Your task to perform on an android device: open sync settings in chrome Image 0: 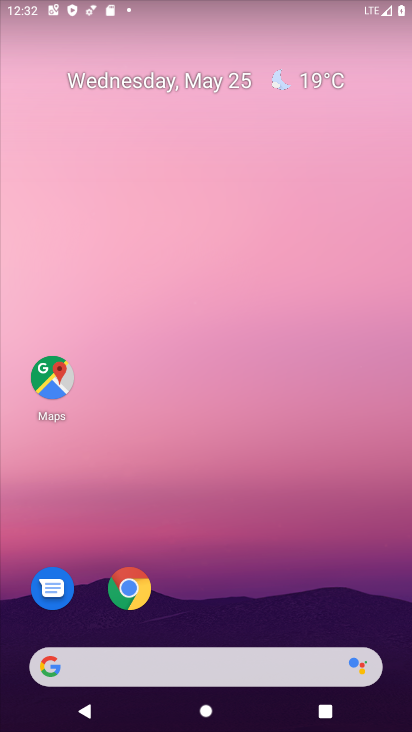
Step 0: click (132, 590)
Your task to perform on an android device: open sync settings in chrome Image 1: 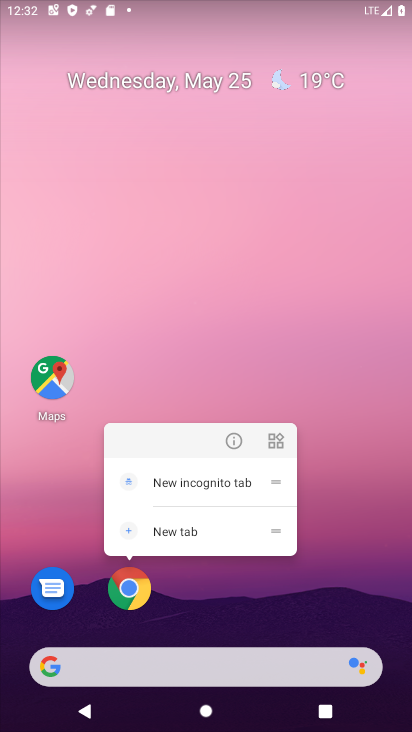
Step 1: click (133, 586)
Your task to perform on an android device: open sync settings in chrome Image 2: 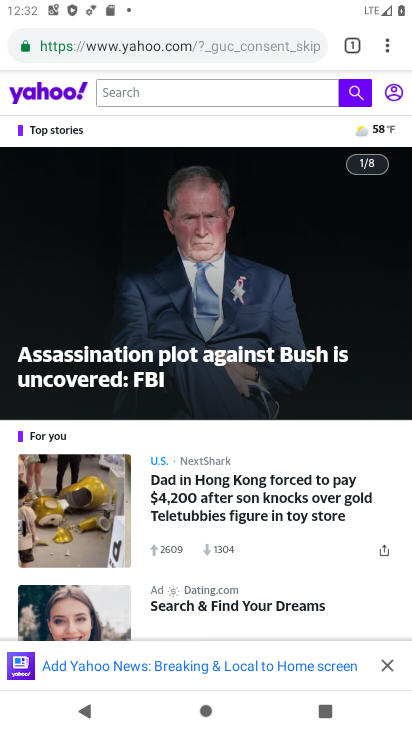
Step 2: drag from (392, 53) to (288, 536)
Your task to perform on an android device: open sync settings in chrome Image 3: 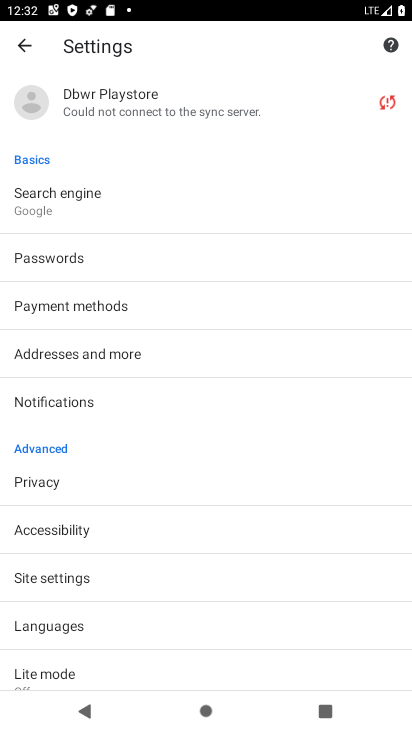
Step 3: click (282, 108)
Your task to perform on an android device: open sync settings in chrome Image 4: 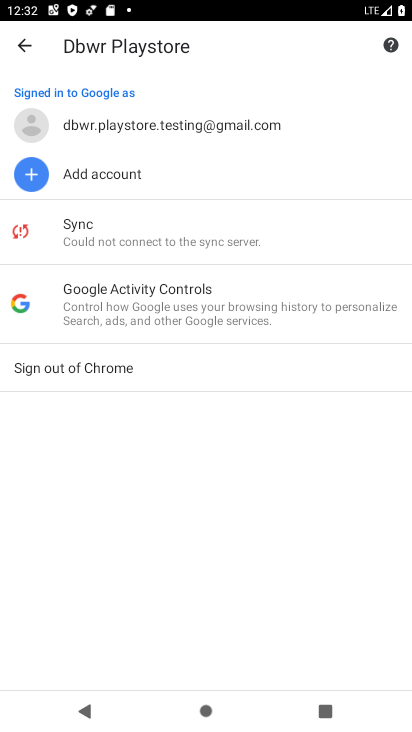
Step 4: click (94, 235)
Your task to perform on an android device: open sync settings in chrome Image 5: 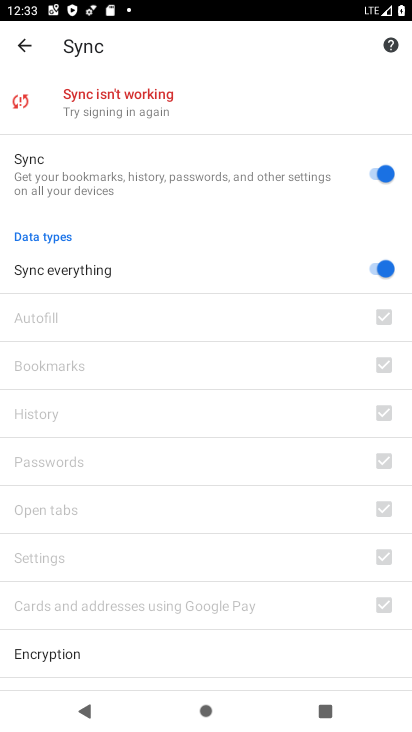
Step 5: task complete